Your task to perform on an android device: Open the stopwatch Image 0: 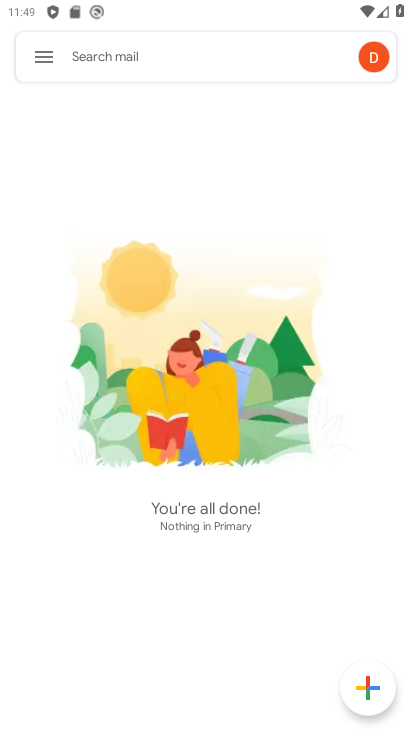
Step 0: press home button
Your task to perform on an android device: Open the stopwatch Image 1: 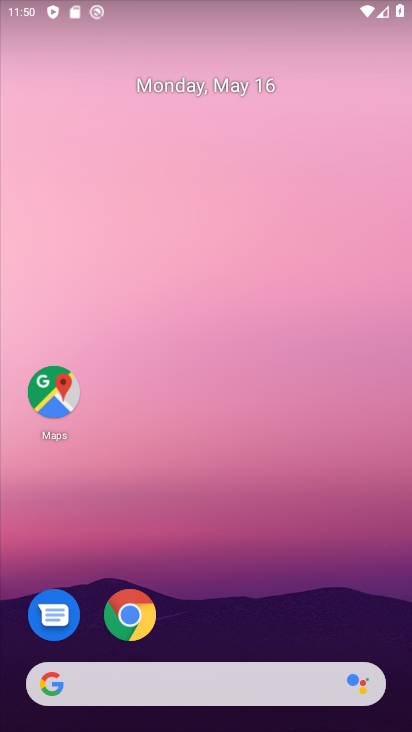
Step 1: drag from (244, 601) to (257, 163)
Your task to perform on an android device: Open the stopwatch Image 2: 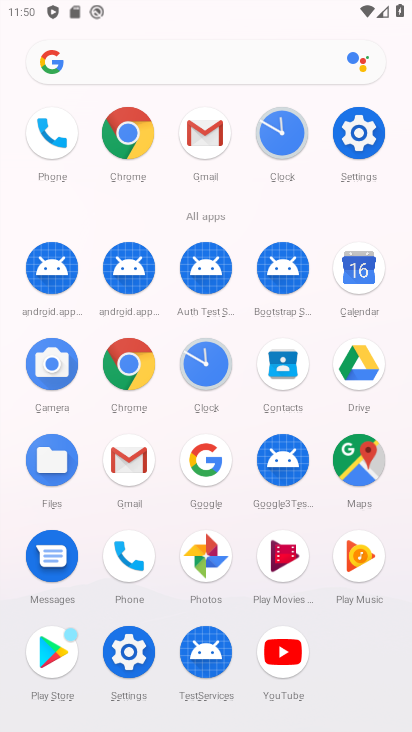
Step 2: click (273, 163)
Your task to perform on an android device: Open the stopwatch Image 3: 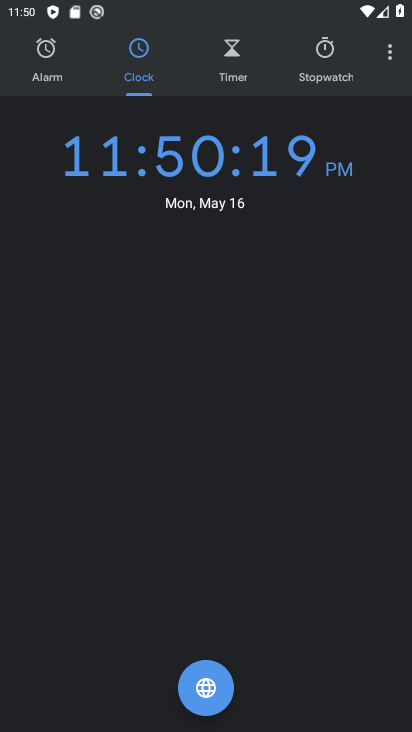
Step 3: click (307, 68)
Your task to perform on an android device: Open the stopwatch Image 4: 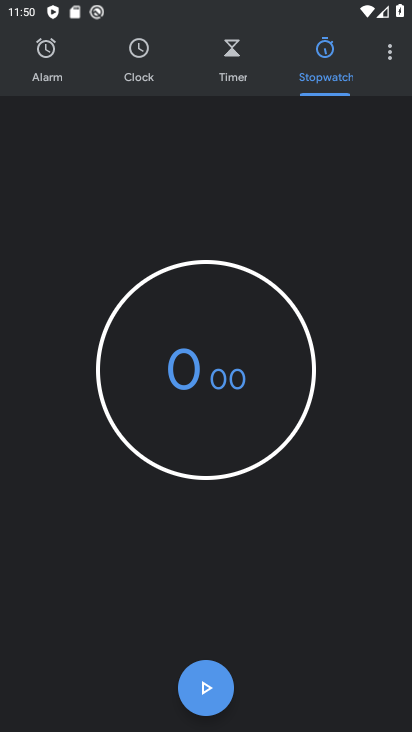
Step 4: task complete